Your task to perform on an android device: Open the Play Movies app and select the watchlist tab. Image 0: 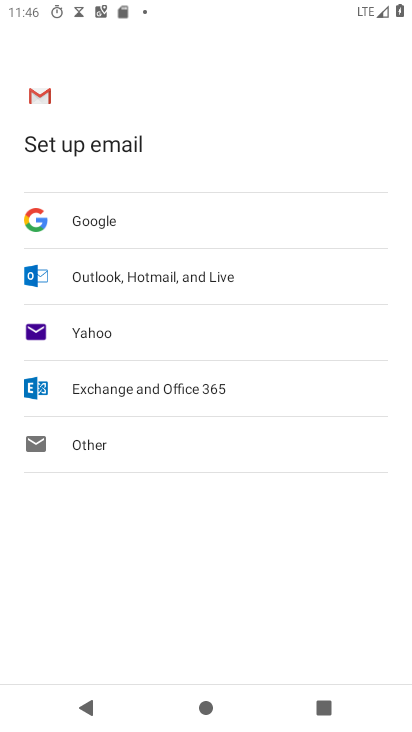
Step 0: press home button
Your task to perform on an android device: Open the Play Movies app and select the watchlist tab. Image 1: 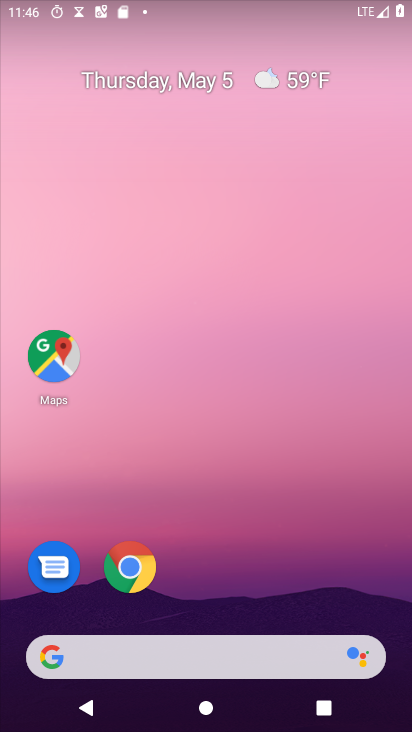
Step 1: drag from (218, 558) to (257, 25)
Your task to perform on an android device: Open the Play Movies app and select the watchlist tab. Image 2: 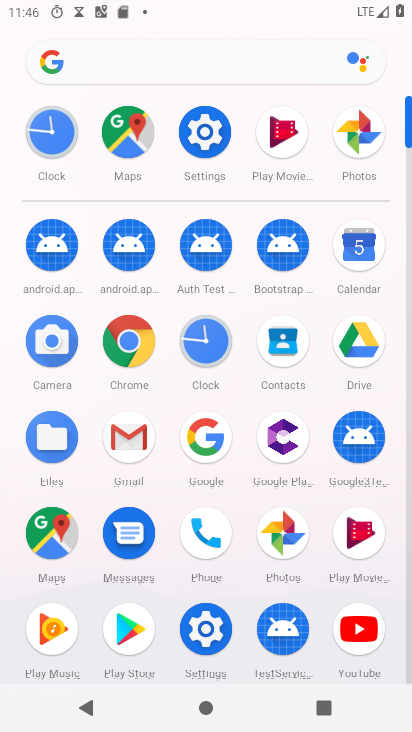
Step 2: click (351, 545)
Your task to perform on an android device: Open the Play Movies app and select the watchlist tab. Image 3: 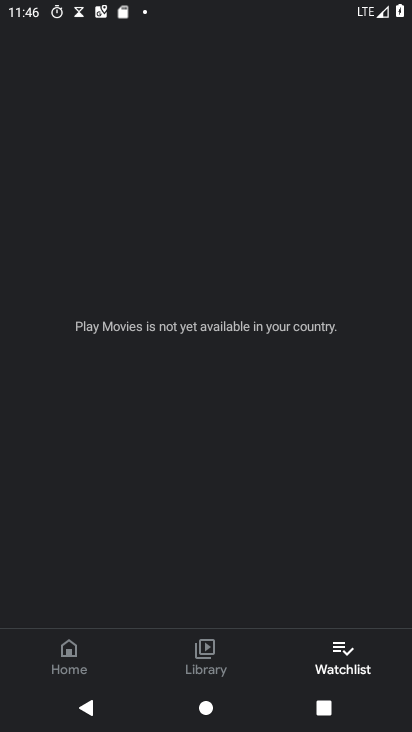
Step 3: click (340, 654)
Your task to perform on an android device: Open the Play Movies app and select the watchlist tab. Image 4: 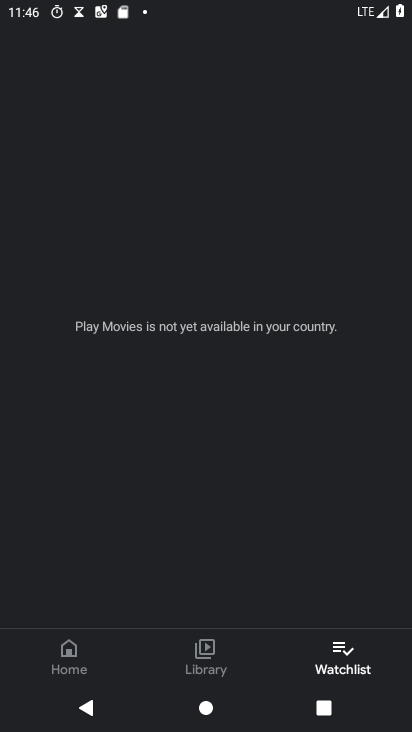
Step 4: task complete